Your task to perform on an android device: Open Maps and search for coffee Image 0: 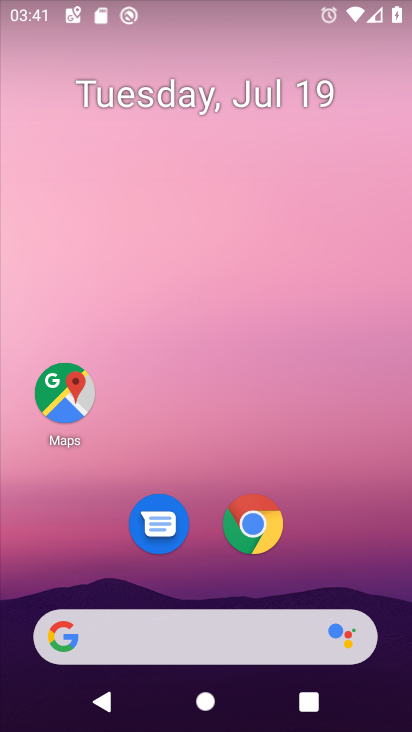
Step 0: drag from (247, 447) to (249, 22)
Your task to perform on an android device: Open Maps and search for coffee Image 1: 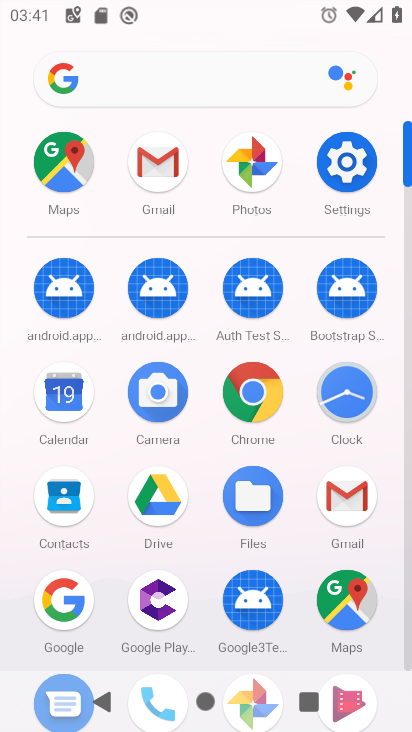
Step 1: click (54, 155)
Your task to perform on an android device: Open Maps and search for coffee Image 2: 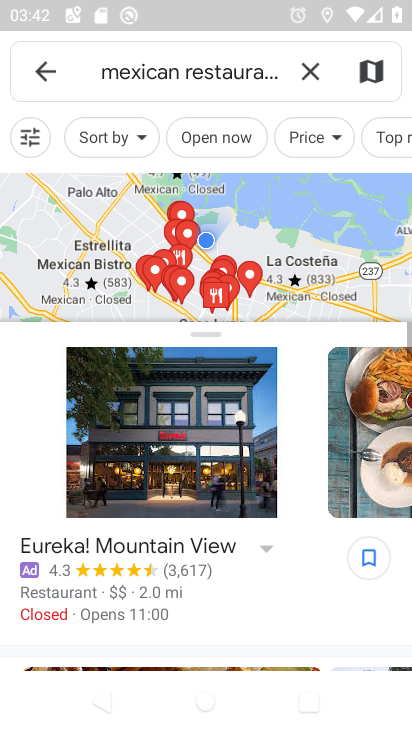
Step 2: click (308, 71)
Your task to perform on an android device: Open Maps and search for coffee Image 3: 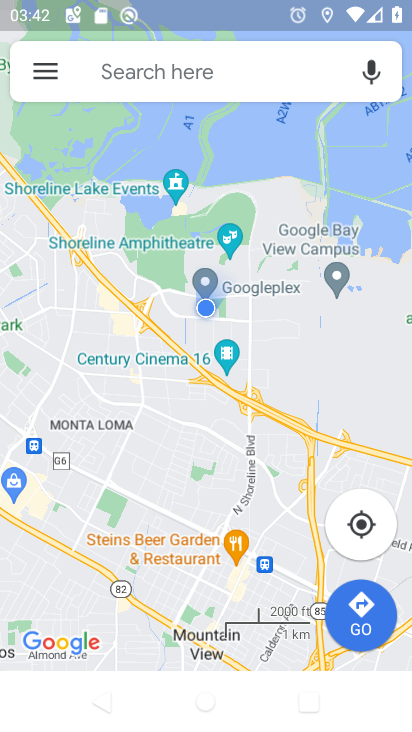
Step 3: click (229, 63)
Your task to perform on an android device: Open Maps and search for coffee Image 4: 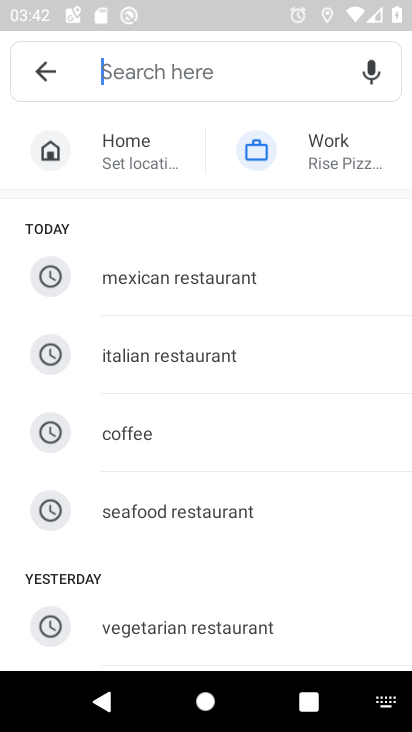
Step 4: click (128, 429)
Your task to perform on an android device: Open Maps and search for coffee Image 5: 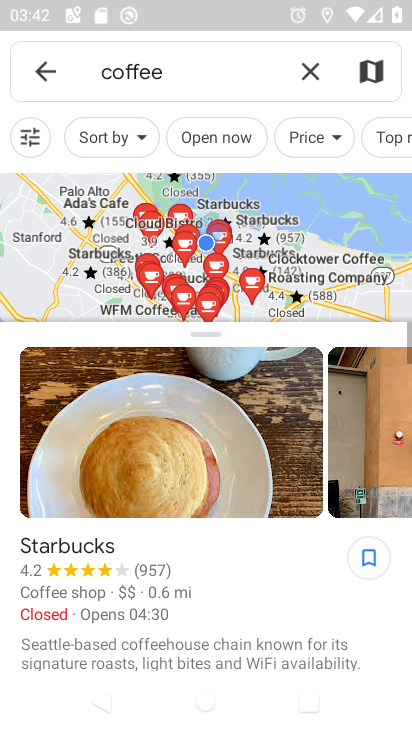
Step 5: task complete